Your task to perform on an android device: Is it going to rain this weekend? Image 0: 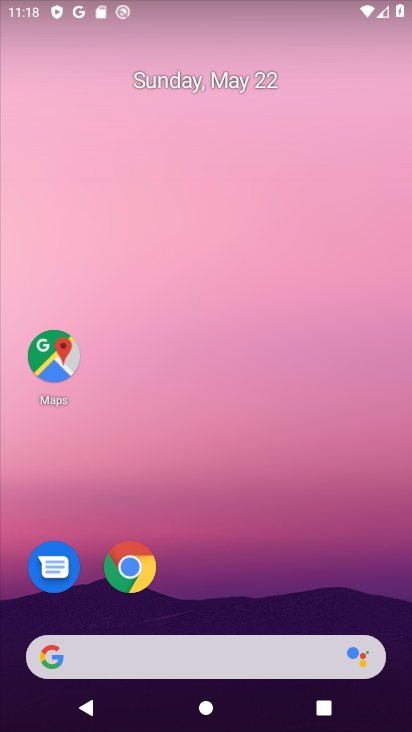
Step 0: click (291, 658)
Your task to perform on an android device: Is it going to rain this weekend? Image 1: 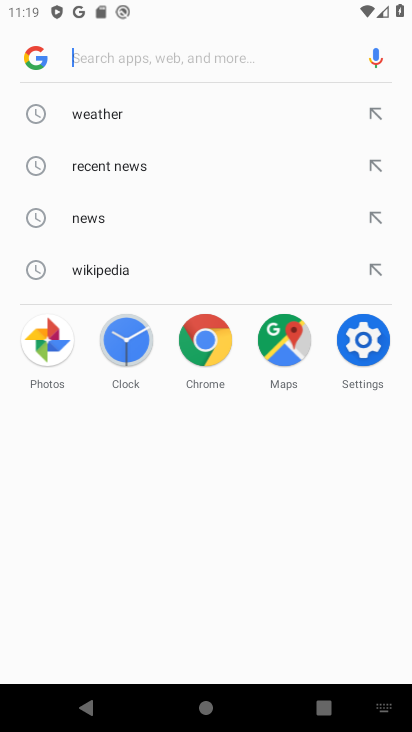
Step 1: click (129, 108)
Your task to perform on an android device: Is it going to rain this weekend? Image 2: 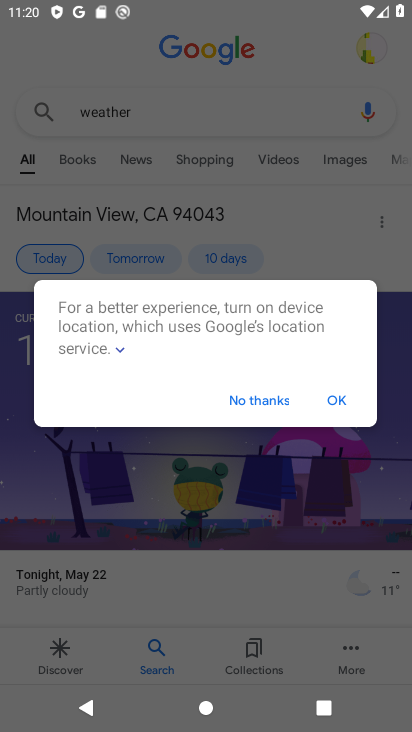
Step 2: click (340, 405)
Your task to perform on an android device: Is it going to rain this weekend? Image 3: 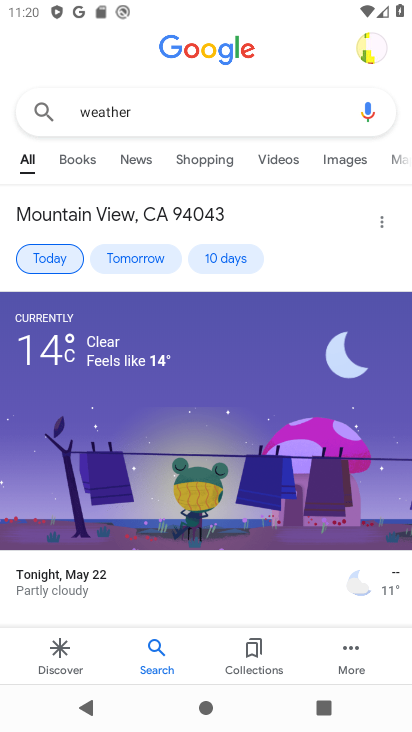
Step 3: click (216, 261)
Your task to perform on an android device: Is it going to rain this weekend? Image 4: 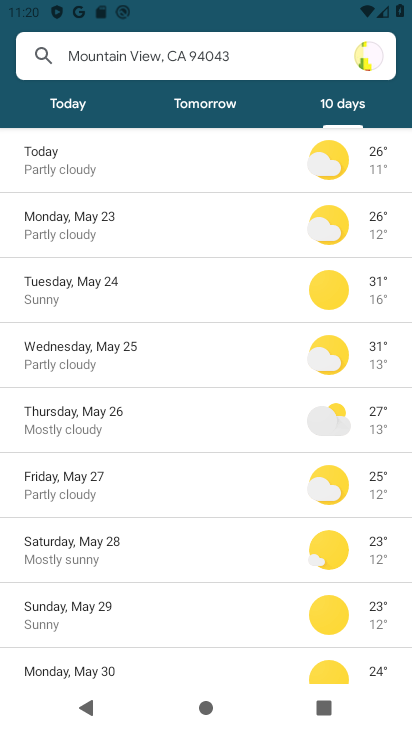
Step 4: task complete